Your task to perform on an android device: Open Chrome and go to settings Image 0: 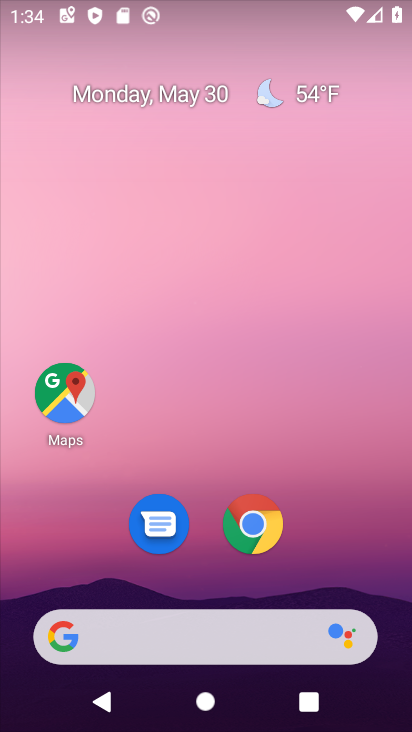
Step 0: click (247, 526)
Your task to perform on an android device: Open Chrome and go to settings Image 1: 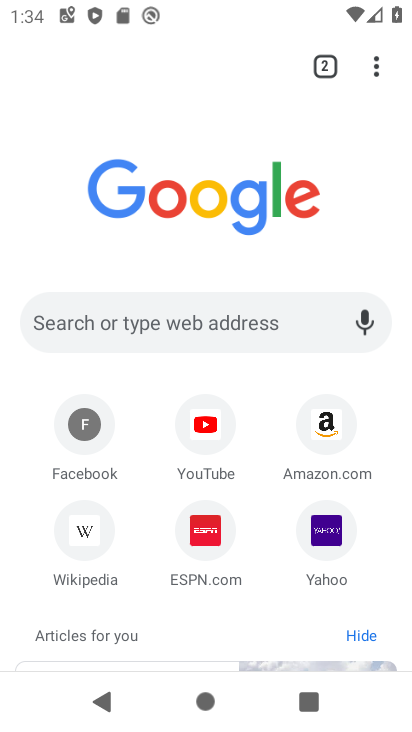
Step 1: click (379, 66)
Your task to perform on an android device: Open Chrome and go to settings Image 2: 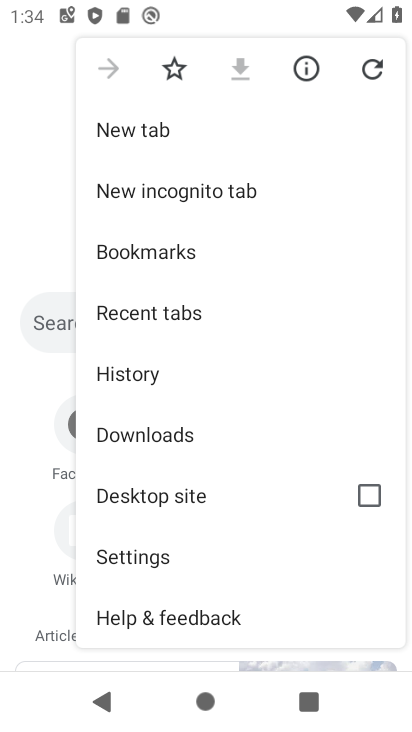
Step 2: click (162, 552)
Your task to perform on an android device: Open Chrome and go to settings Image 3: 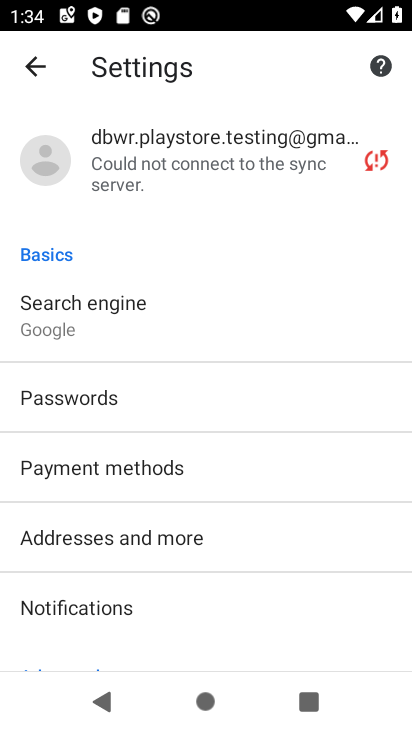
Step 3: task complete